Your task to perform on an android device: clear all cookies in the chrome app Image 0: 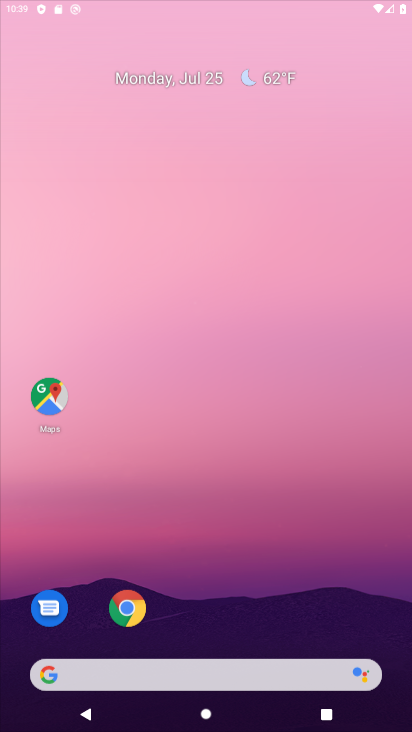
Step 0: press home button
Your task to perform on an android device: clear all cookies in the chrome app Image 1: 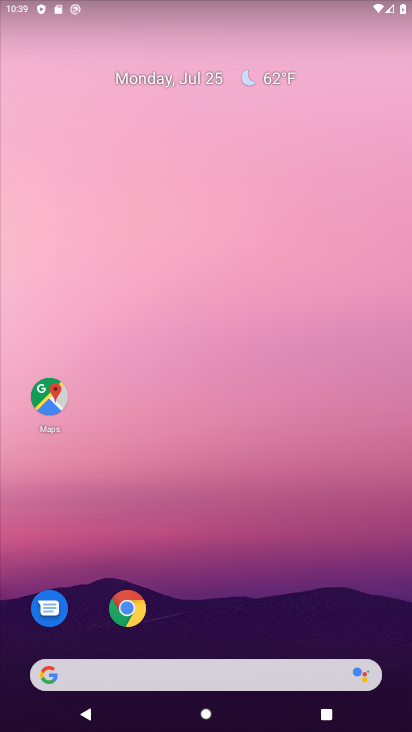
Step 1: click (120, 605)
Your task to perform on an android device: clear all cookies in the chrome app Image 2: 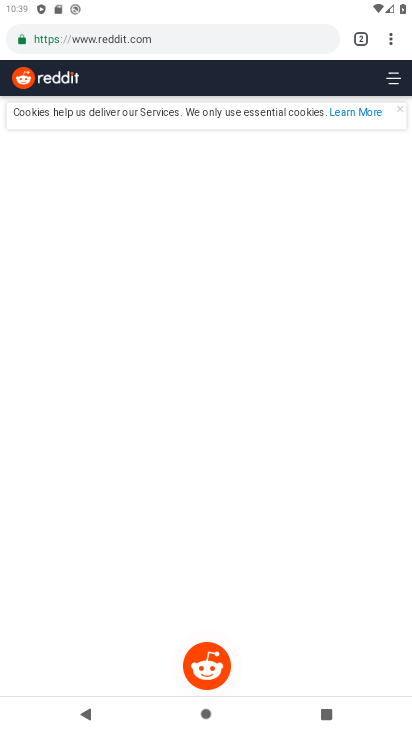
Step 2: click (393, 39)
Your task to perform on an android device: clear all cookies in the chrome app Image 3: 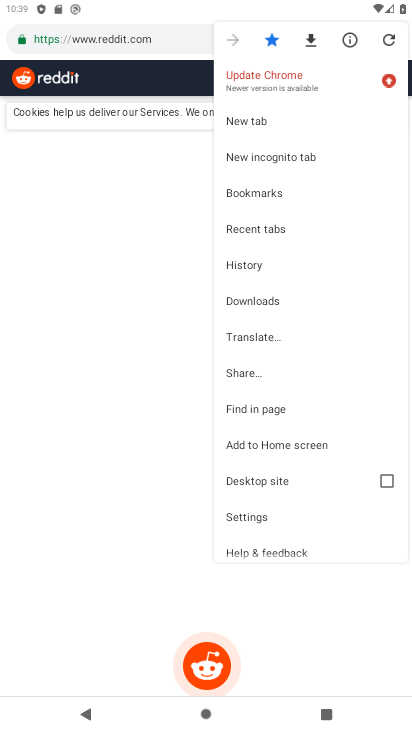
Step 3: click (251, 510)
Your task to perform on an android device: clear all cookies in the chrome app Image 4: 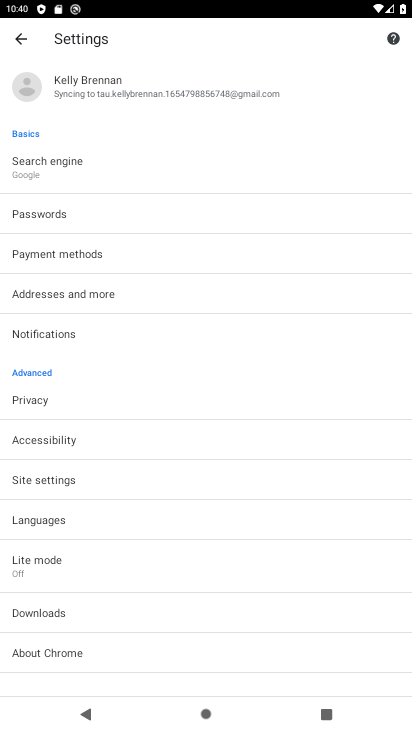
Step 4: click (30, 394)
Your task to perform on an android device: clear all cookies in the chrome app Image 5: 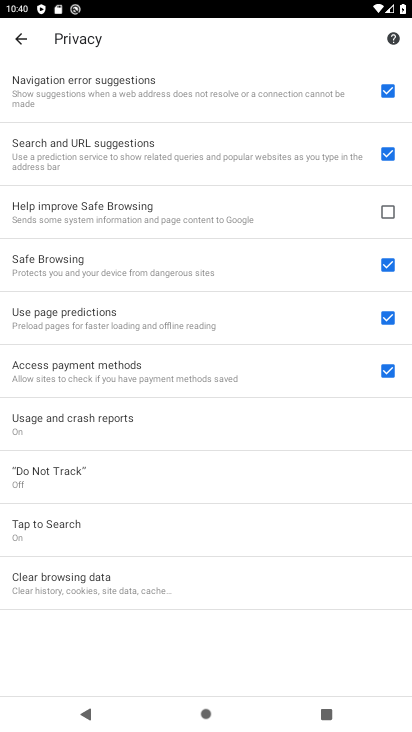
Step 5: click (58, 590)
Your task to perform on an android device: clear all cookies in the chrome app Image 6: 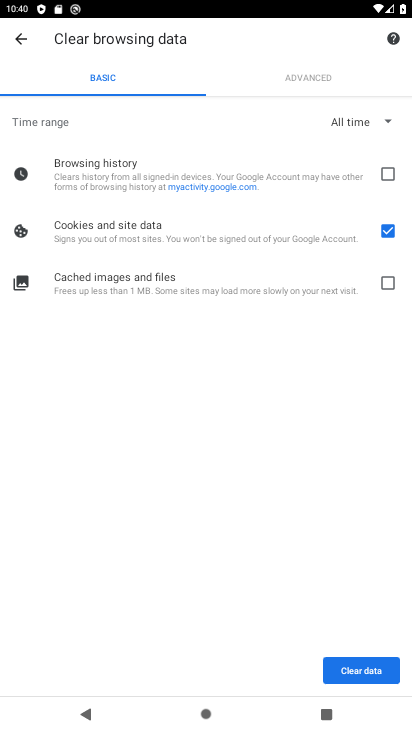
Step 6: click (374, 667)
Your task to perform on an android device: clear all cookies in the chrome app Image 7: 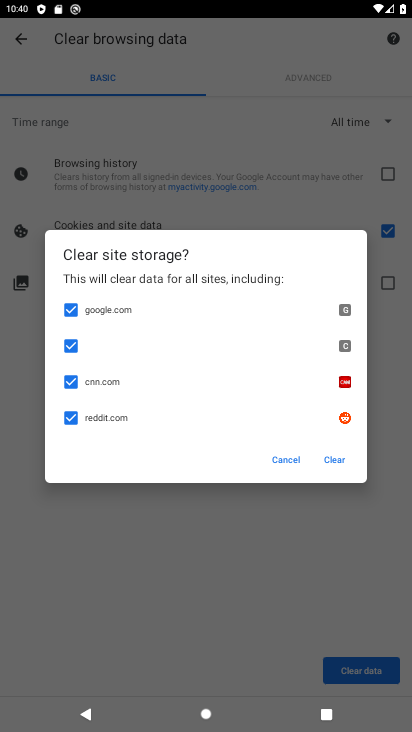
Step 7: click (336, 462)
Your task to perform on an android device: clear all cookies in the chrome app Image 8: 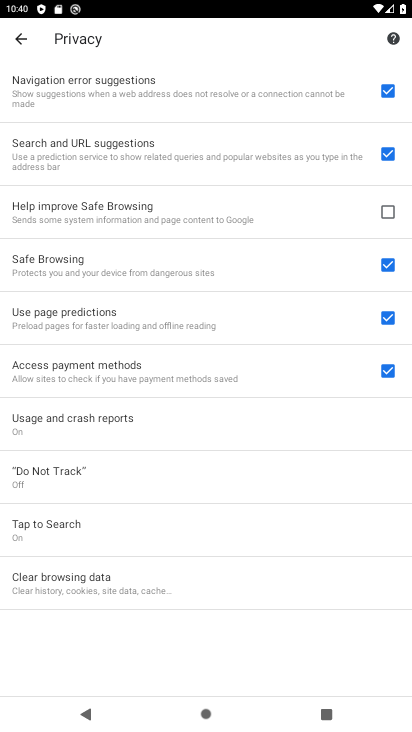
Step 8: task complete